Your task to perform on an android device: turn on bluetooth scan Image 0: 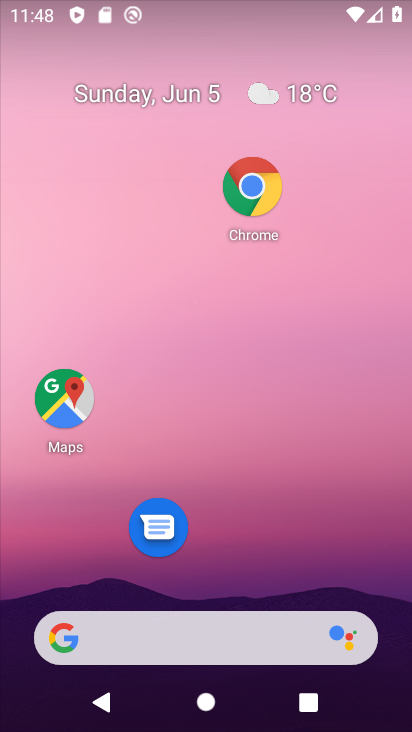
Step 0: drag from (250, 537) to (226, 136)
Your task to perform on an android device: turn on bluetooth scan Image 1: 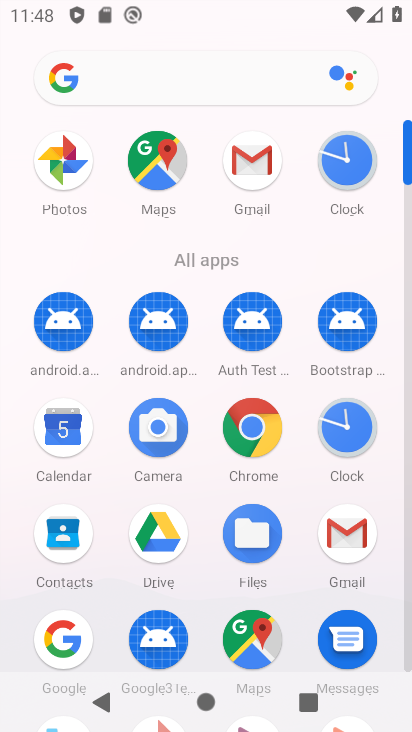
Step 1: drag from (293, 568) to (294, 318)
Your task to perform on an android device: turn on bluetooth scan Image 2: 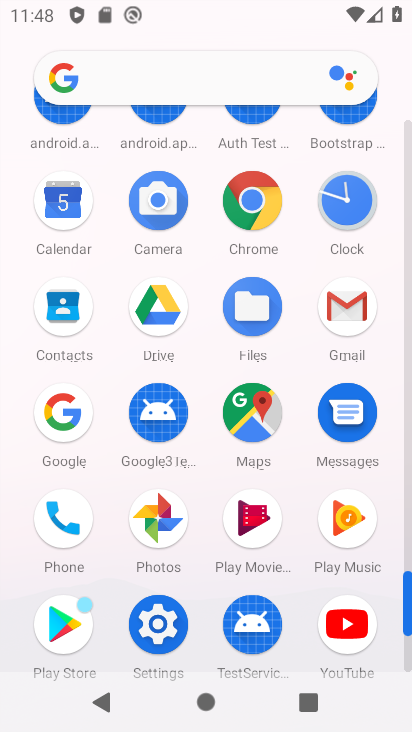
Step 2: click (146, 635)
Your task to perform on an android device: turn on bluetooth scan Image 3: 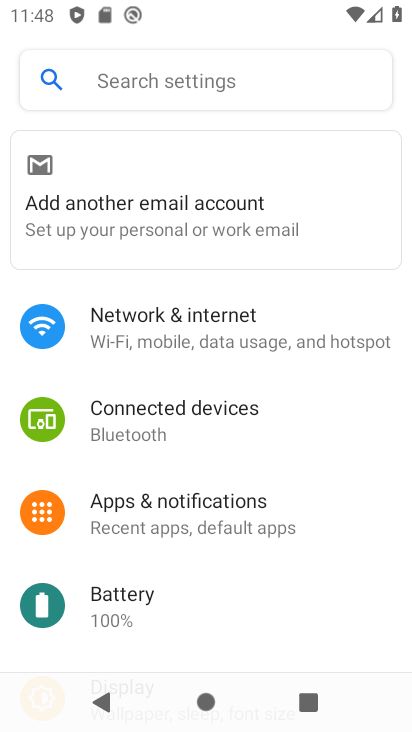
Step 3: drag from (179, 564) to (213, 394)
Your task to perform on an android device: turn on bluetooth scan Image 4: 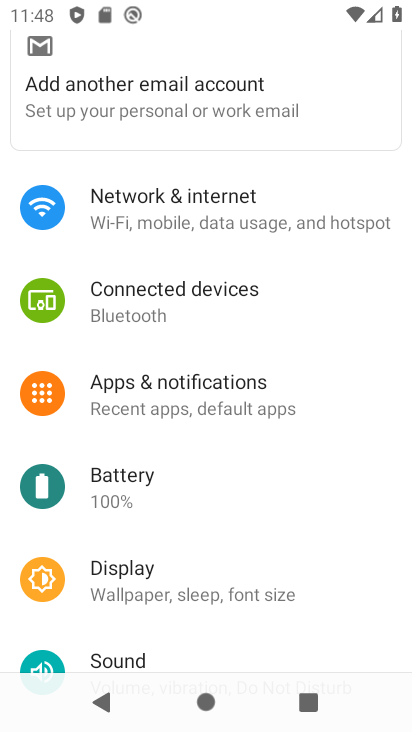
Step 4: drag from (244, 616) to (214, 455)
Your task to perform on an android device: turn on bluetooth scan Image 5: 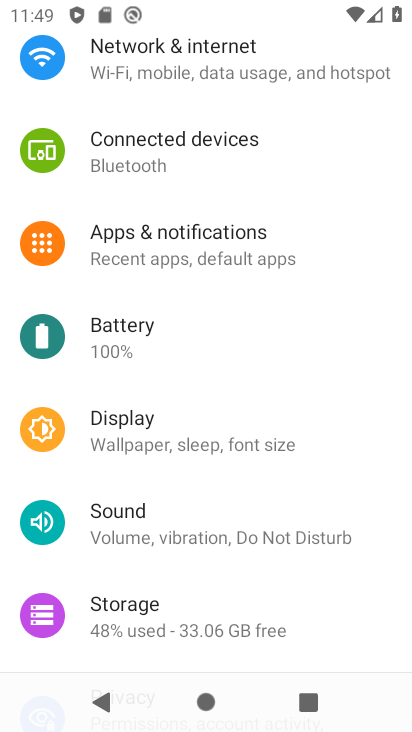
Step 5: drag from (191, 538) to (185, 427)
Your task to perform on an android device: turn on bluetooth scan Image 6: 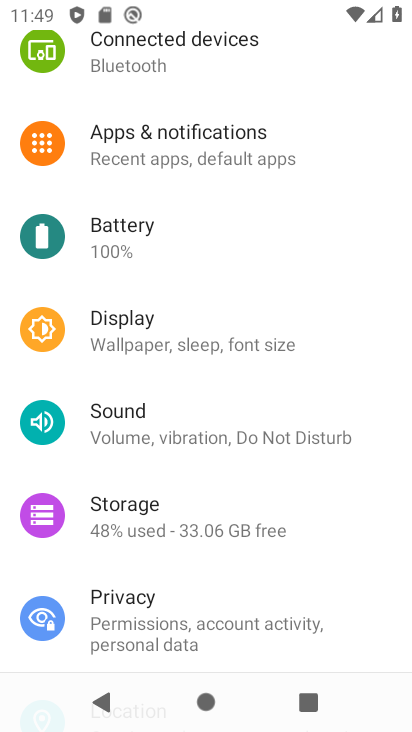
Step 6: drag from (174, 400) to (195, 491)
Your task to perform on an android device: turn on bluetooth scan Image 7: 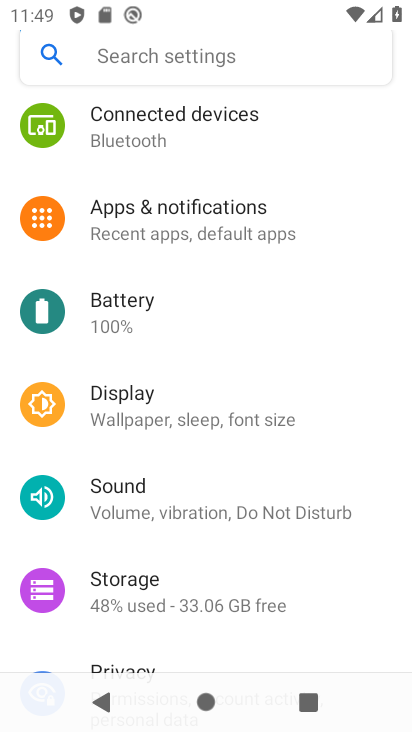
Step 7: drag from (193, 462) to (183, 406)
Your task to perform on an android device: turn on bluetooth scan Image 8: 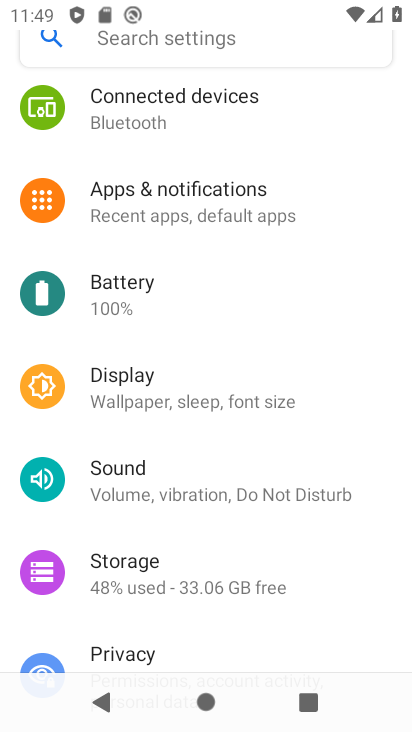
Step 8: drag from (212, 550) to (188, 370)
Your task to perform on an android device: turn on bluetooth scan Image 9: 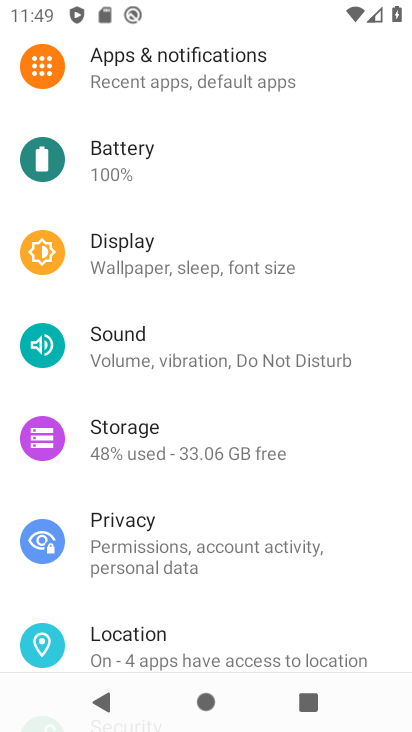
Step 9: click (214, 660)
Your task to perform on an android device: turn on bluetooth scan Image 10: 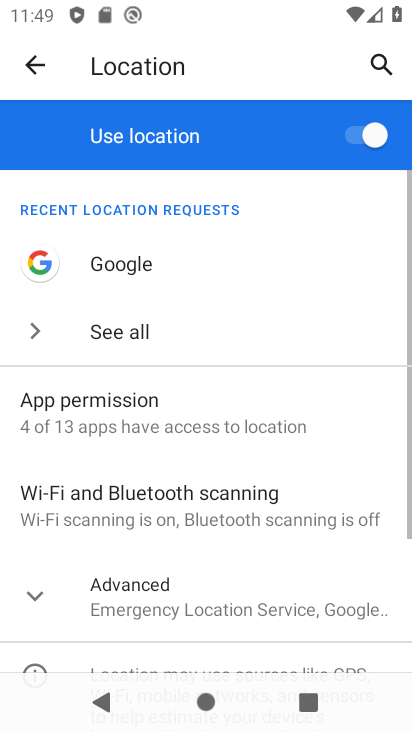
Step 10: click (166, 502)
Your task to perform on an android device: turn on bluetooth scan Image 11: 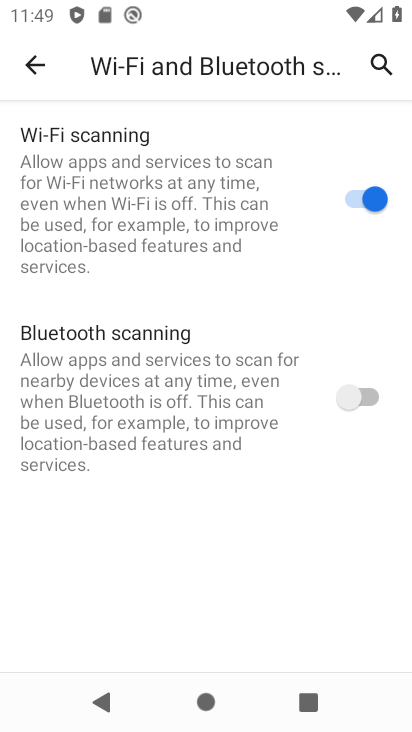
Step 11: click (366, 392)
Your task to perform on an android device: turn on bluetooth scan Image 12: 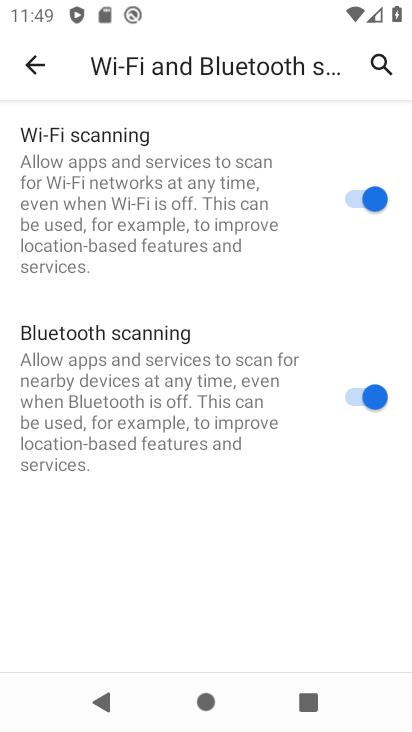
Step 12: task complete